Your task to perform on an android device: What's on my calendar tomorrow? Image 0: 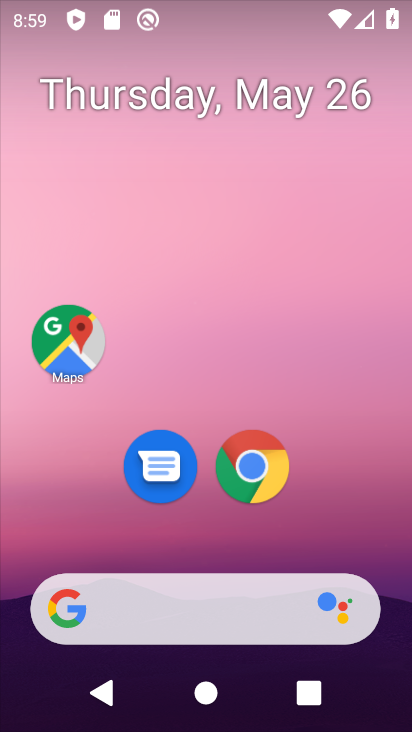
Step 0: drag from (329, 531) to (244, 92)
Your task to perform on an android device: What's on my calendar tomorrow? Image 1: 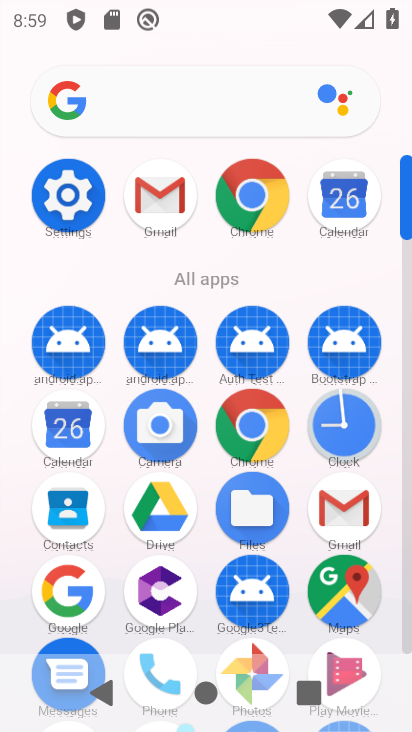
Step 1: click (78, 436)
Your task to perform on an android device: What's on my calendar tomorrow? Image 2: 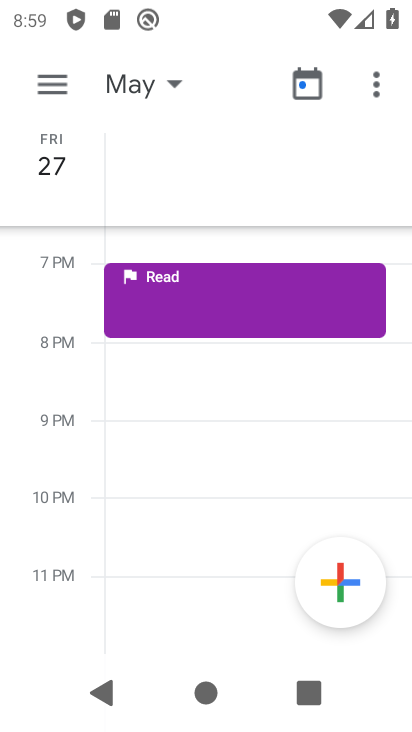
Step 2: click (169, 84)
Your task to perform on an android device: What's on my calendar tomorrow? Image 3: 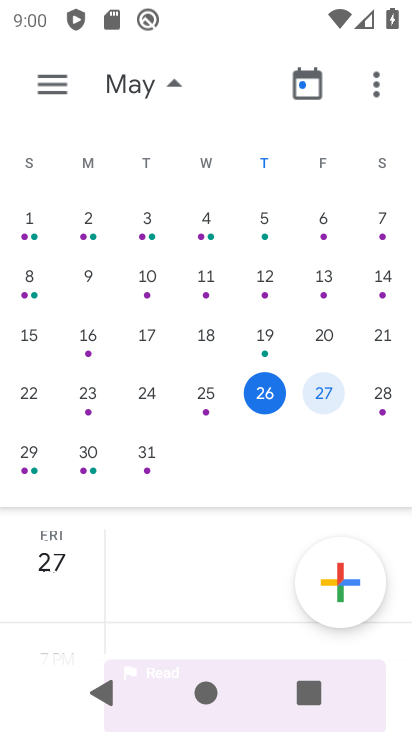
Step 3: click (320, 389)
Your task to perform on an android device: What's on my calendar tomorrow? Image 4: 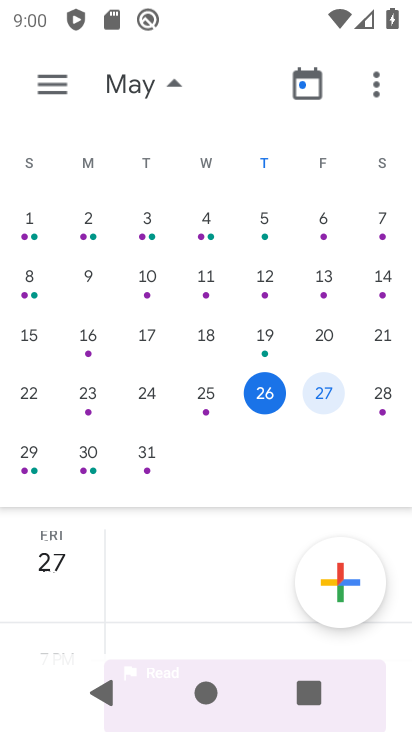
Step 4: click (322, 389)
Your task to perform on an android device: What's on my calendar tomorrow? Image 5: 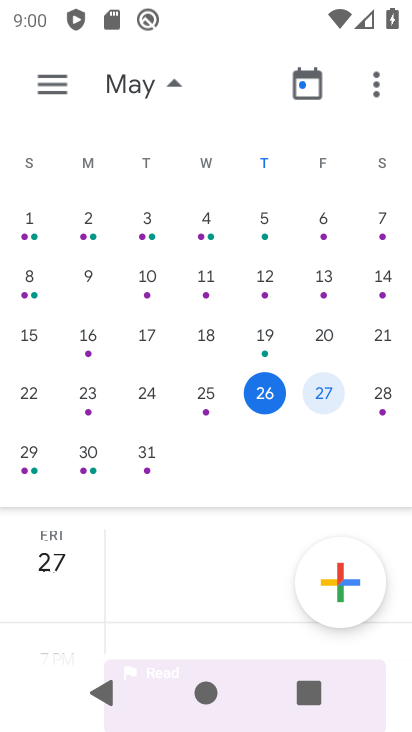
Step 5: task complete